Your task to perform on an android device: set an alarm Image 0: 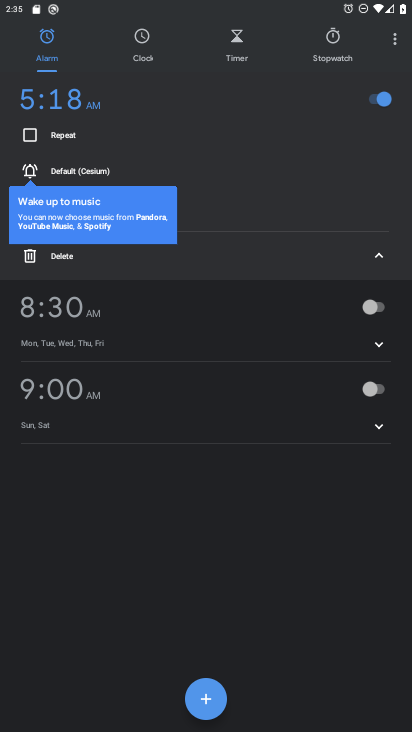
Step 0: press home button
Your task to perform on an android device: set an alarm Image 1: 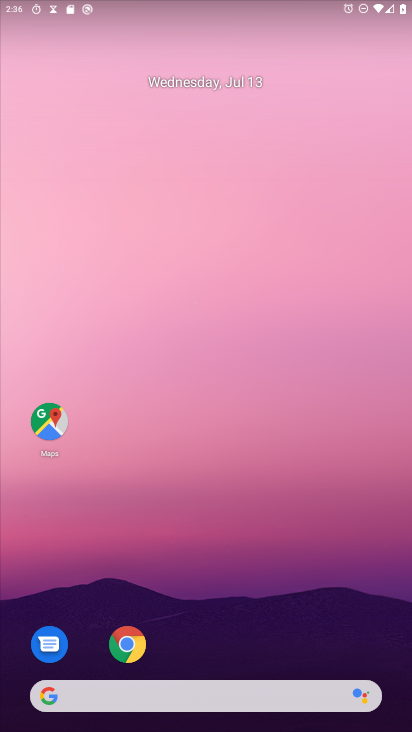
Step 1: press home button
Your task to perform on an android device: set an alarm Image 2: 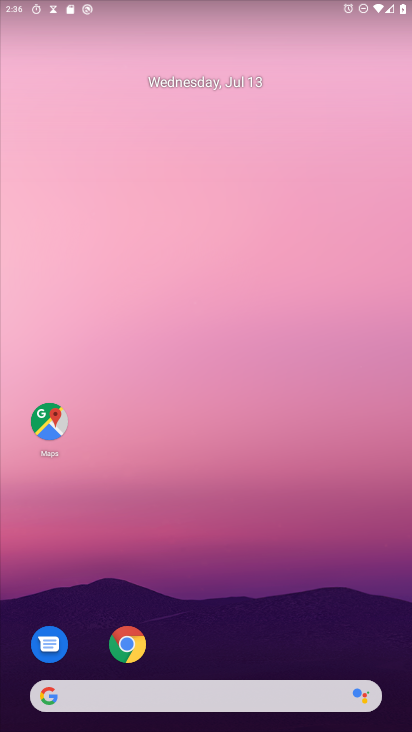
Step 2: drag from (302, 602) to (280, 95)
Your task to perform on an android device: set an alarm Image 3: 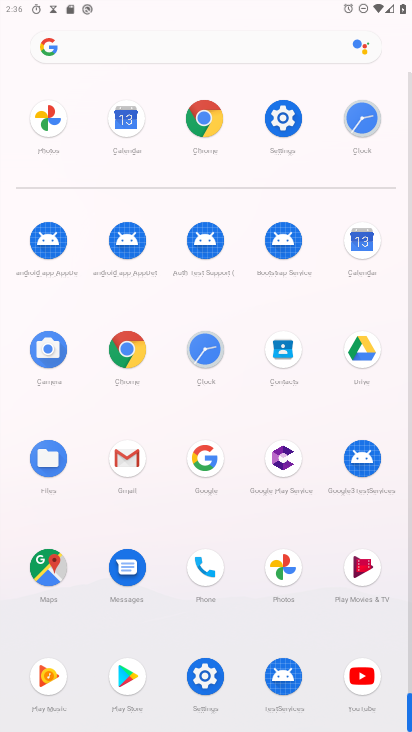
Step 3: click (200, 350)
Your task to perform on an android device: set an alarm Image 4: 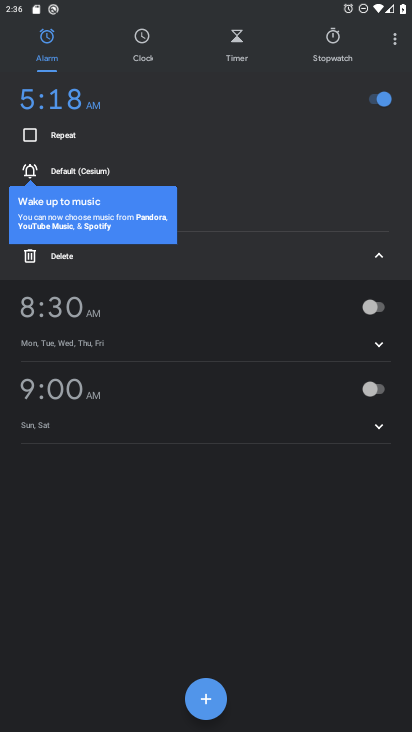
Step 4: click (208, 693)
Your task to perform on an android device: set an alarm Image 5: 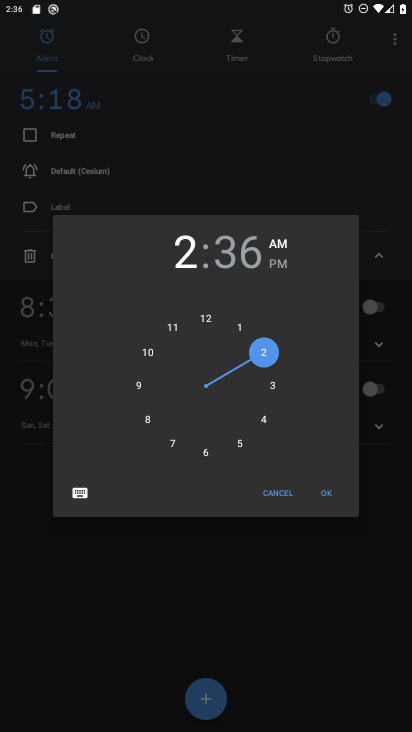
Step 5: click (241, 327)
Your task to perform on an android device: set an alarm Image 6: 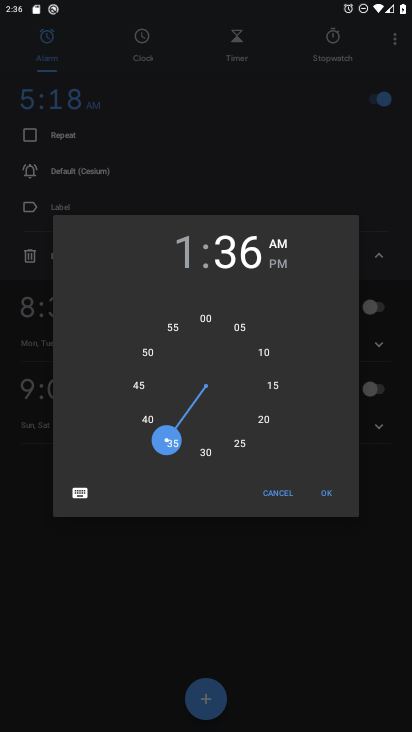
Step 6: click (137, 386)
Your task to perform on an android device: set an alarm Image 7: 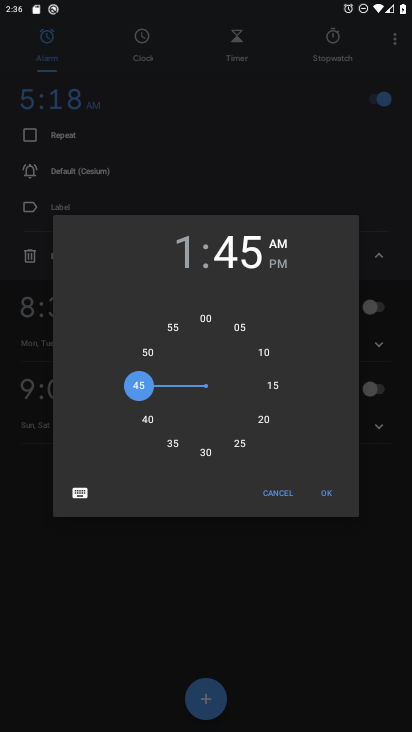
Step 7: click (324, 492)
Your task to perform on an android device: set an alarm Image 8: 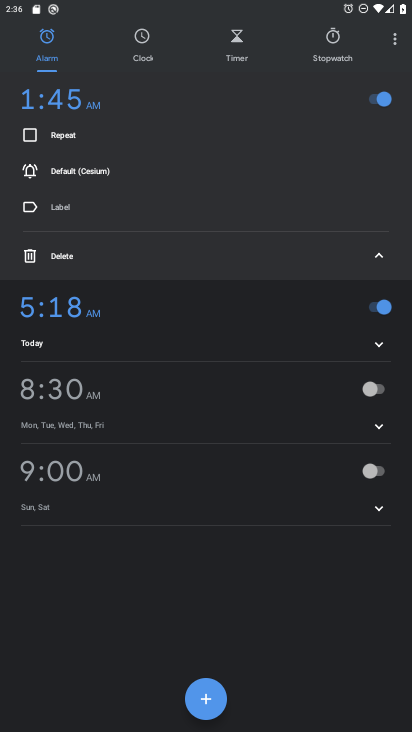
Step 8: task complete